Your task to perform on an android device: Open battery settings Image 0: 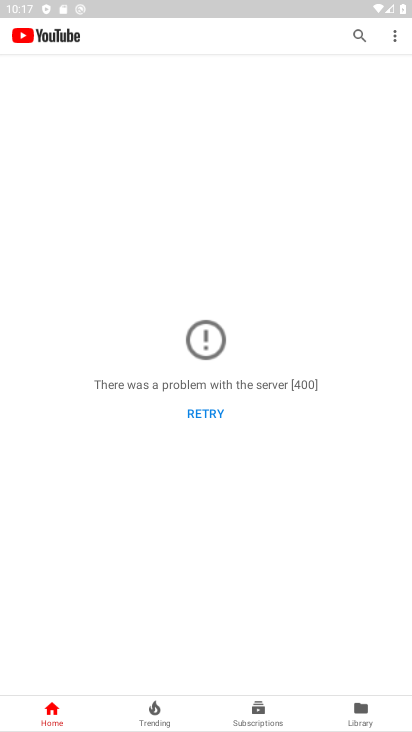
Step 0: press home button
Your task to perform on an android device: Open battery settings Image 1: 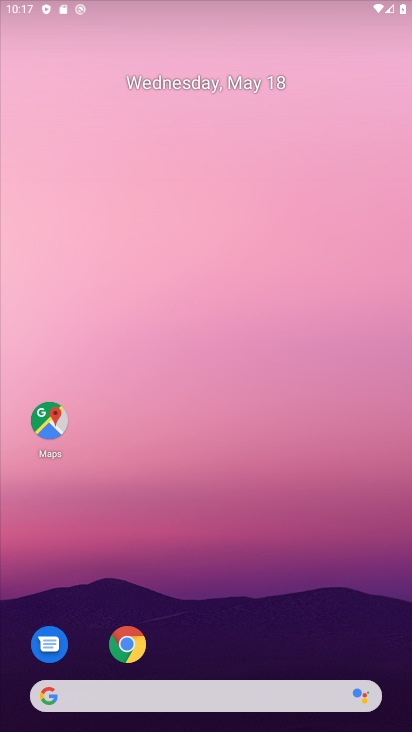
Step 1: drag from (377, 678) to (224, 44)
Your task to perform on an android device: Open battery settings Image 2: 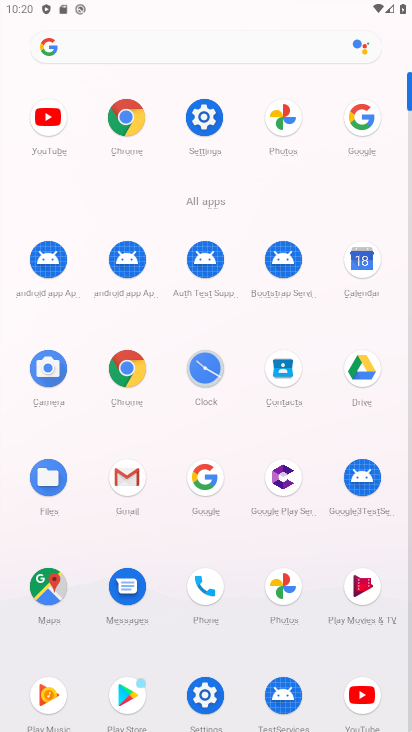
Step 2: click (216, 705)
Your task to perform on an android device: Open battery settings Image 3: 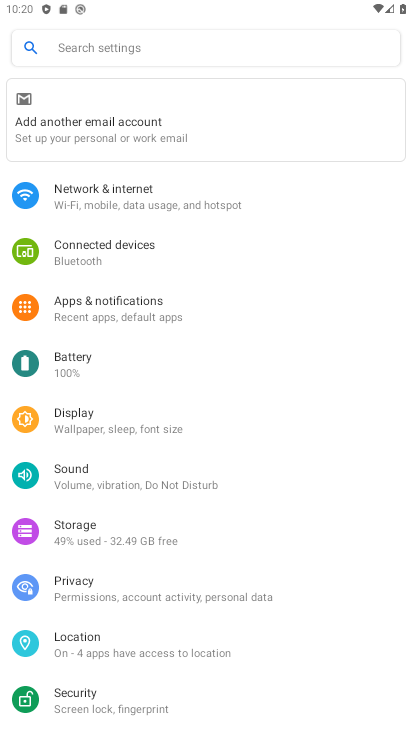
Step 3: click (99, 344)
Your task to perform on an android device: Open battery settings Image 4: 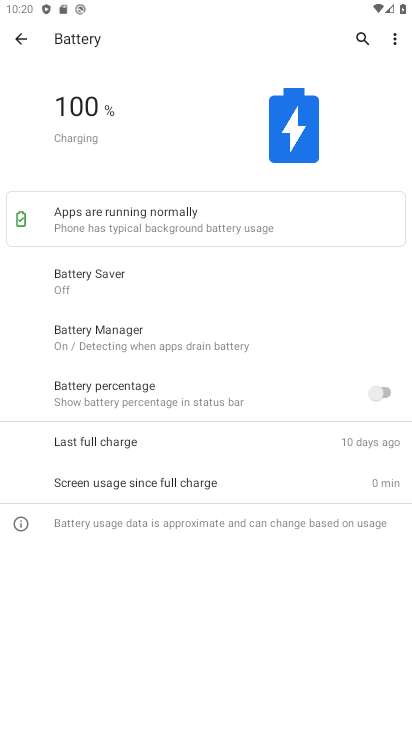
Step 4: task complete